Your task to perform on an android device: Open Yahoo.com Image 0: 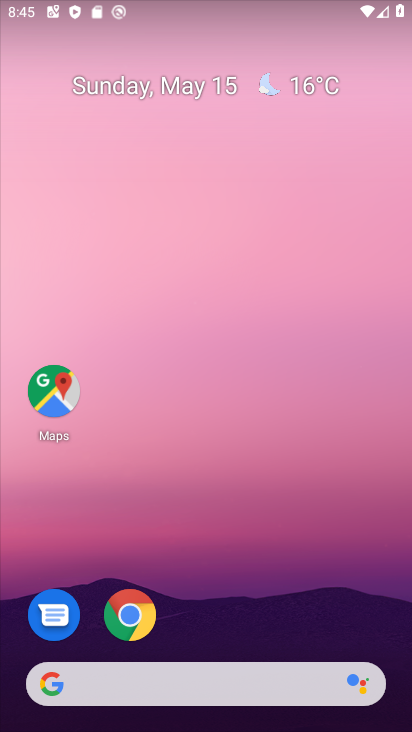
Step 0: click (129, 605)
Your task to perform on an android device: Open Yahoo.com Image 1: 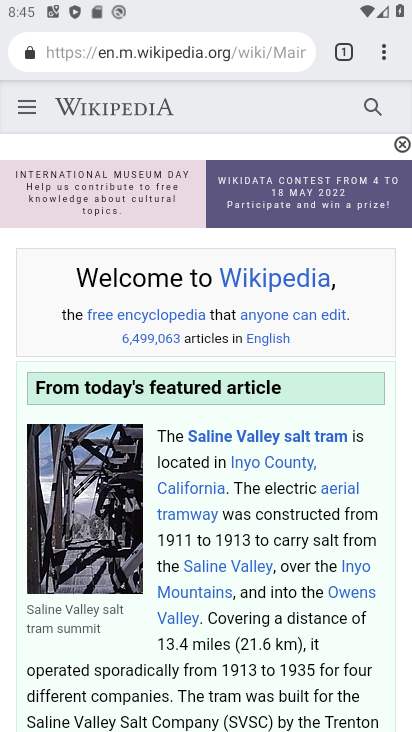
Step 1: click (347, 45)
Your task to perform on an android device: Open Yahoo.com Image 2: 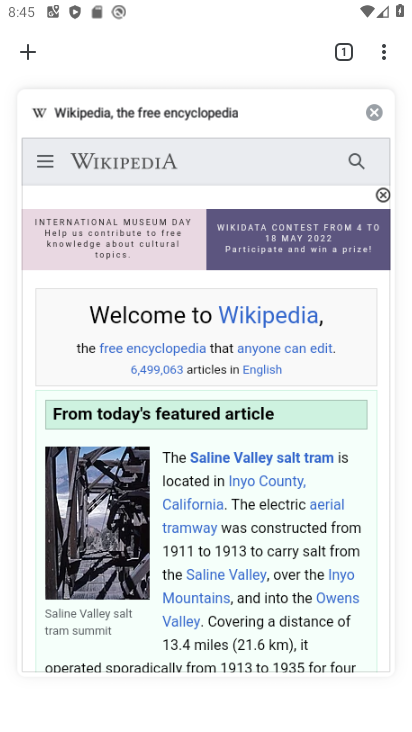
Step 2: click (375, 118)
Your task to perform on an android device: Open Yahoo.com Image 3: 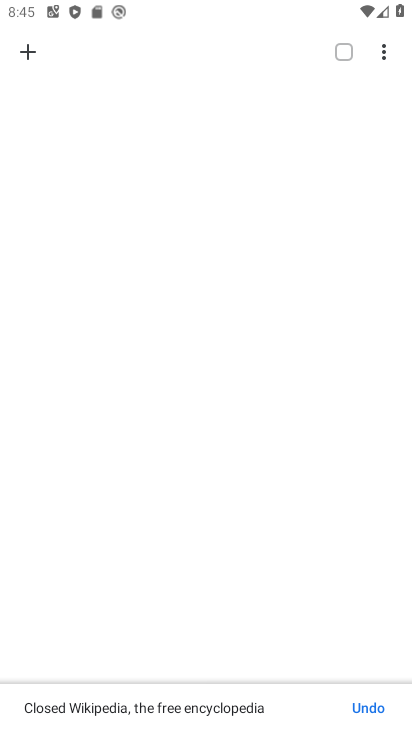
Step 3: click (25, 52)
Your task to perform on an android device: Open Yahoo.com Image 4: 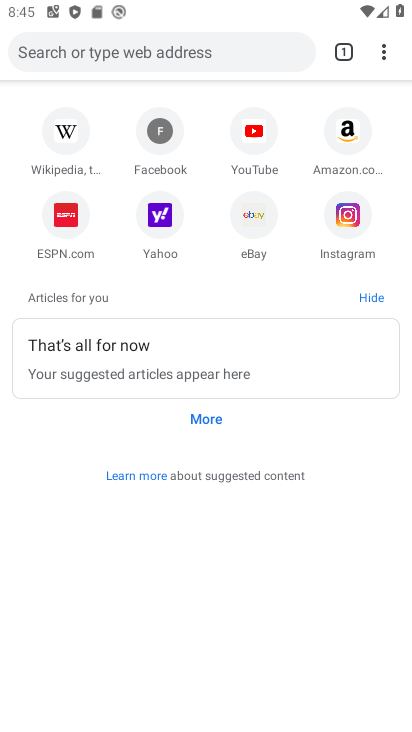
Step 4: click (163, 217)
Your task to perform on an android device: Open Yahoo.com Image 5: 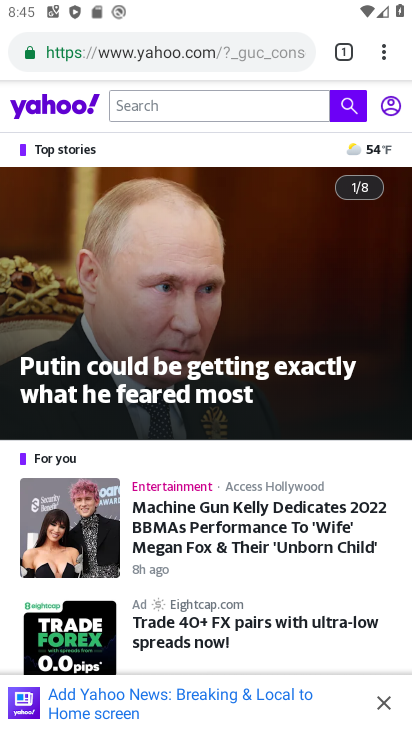
Step 5: task complete